Your task to perform on an android device: change the clock display to digital Image 0: 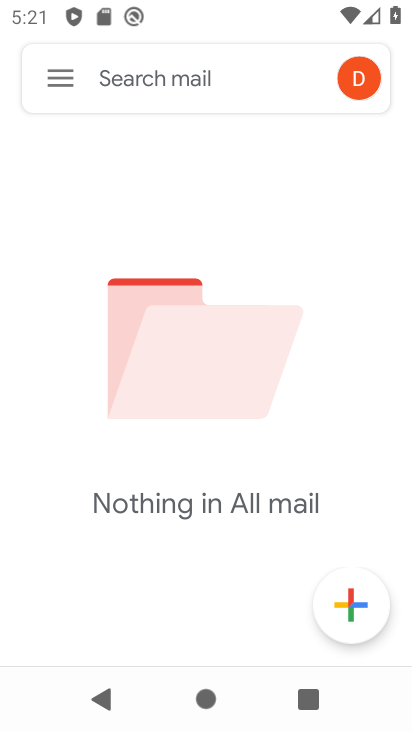
Step 0: press home button
Your task to perform on an android device: change the clock display to digital Image 1: 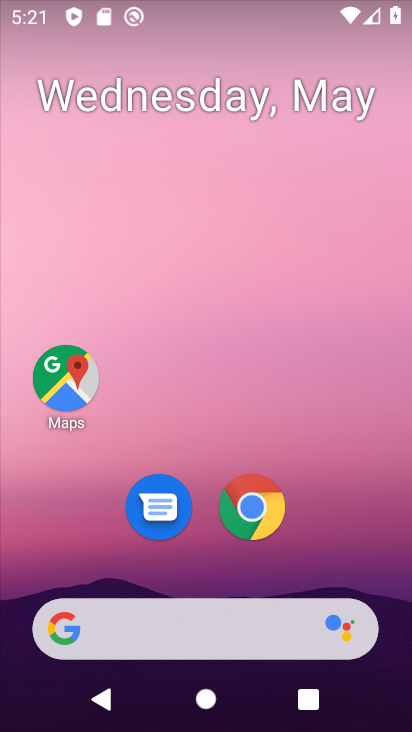
Step 1: drag from (324, 524) to (305, 185)
Your task to perform on an android device: change the clock display to digital Image 2: 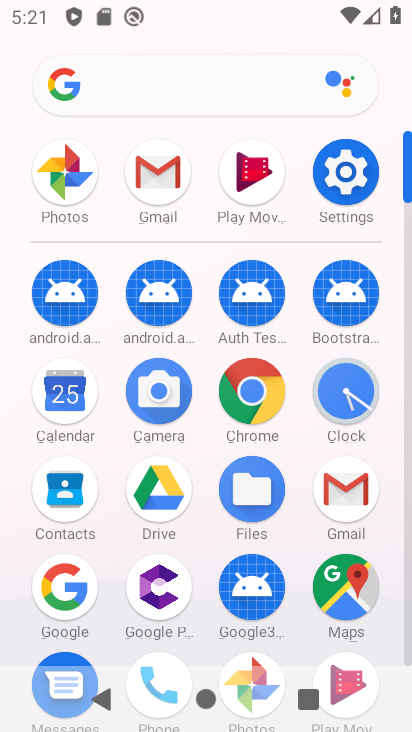
Step 2: click (347, 391)
Your task to perform on an android device: change the clock display to digital Image 3: 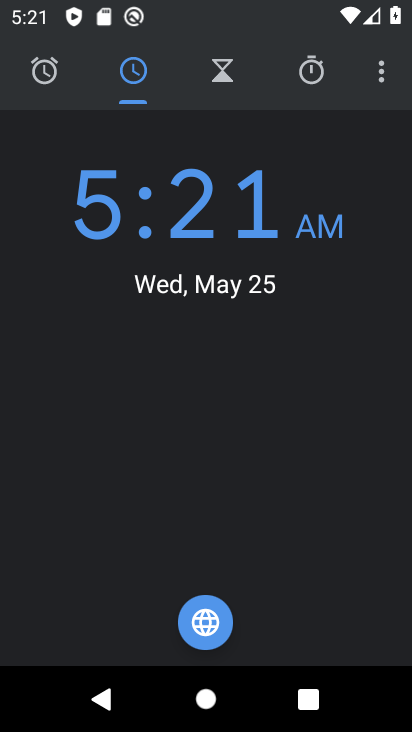
Step 3: click (383, 74)
Your task to perform on an android device: change the clock display to digital Image 4: 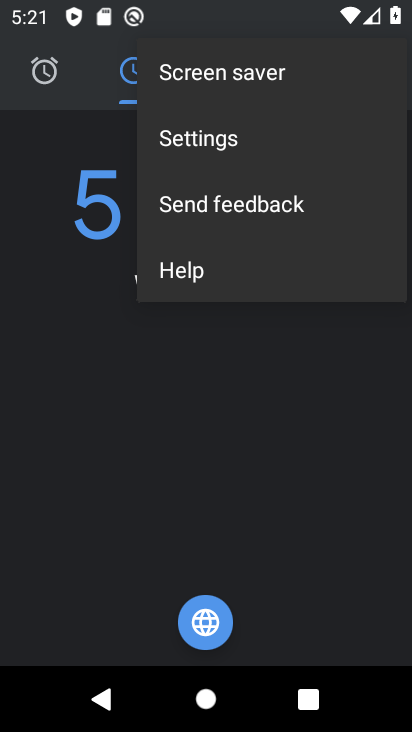
Step 4: click (229, 137)
Your task to perform on an android device: change the clock display to digital Image 5: 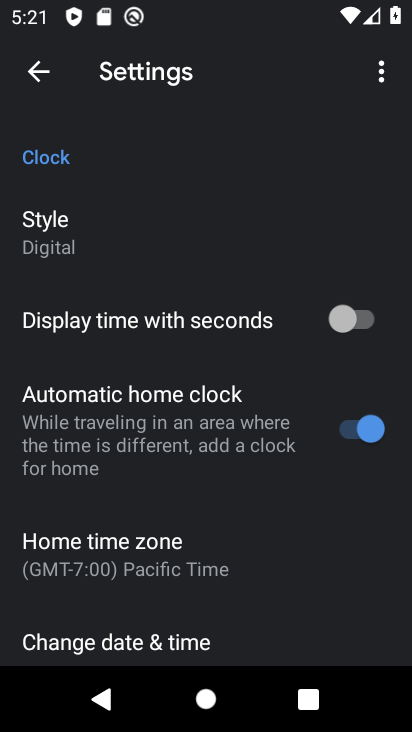
Step 5: click (229, 137)
Your task to perform on an android device: change the clock display to digital Image 6: 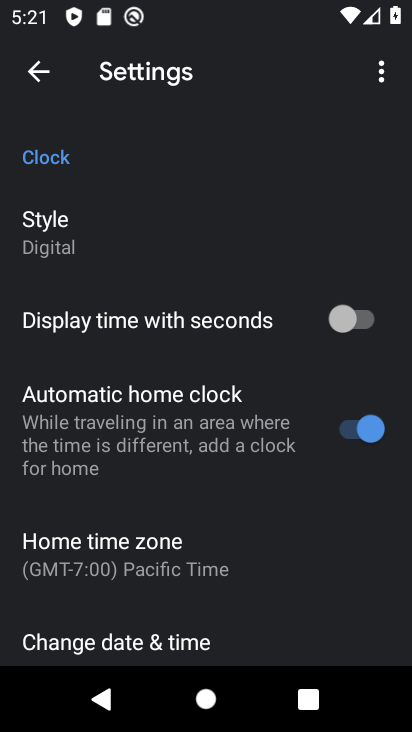
Step 6: click (41, 230)
Your task to perform on an android device: change the clock display to digital Image 7: 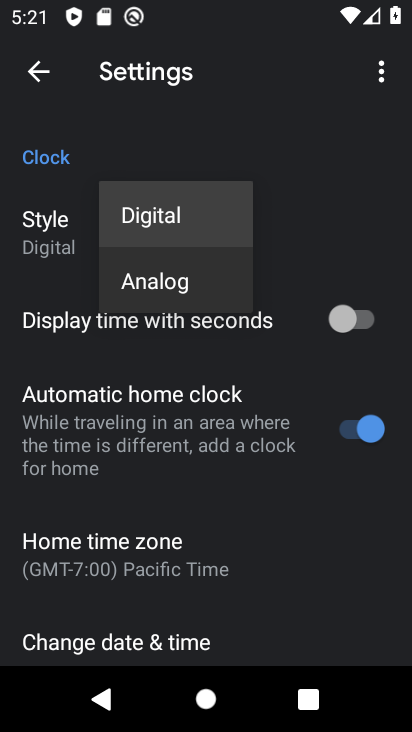
Step 7: click (152, 212)
Your task to perform on an android device: change the clock display to digital Image 8: 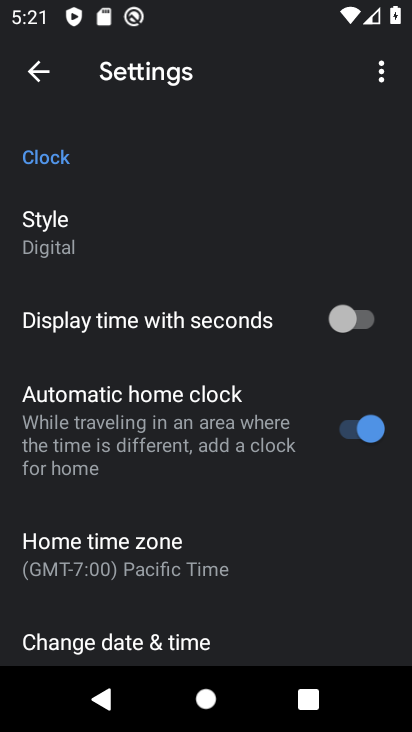
Step 8: task complete